Your task to perform on an android device: allow cookies in the chrome app Image 0: 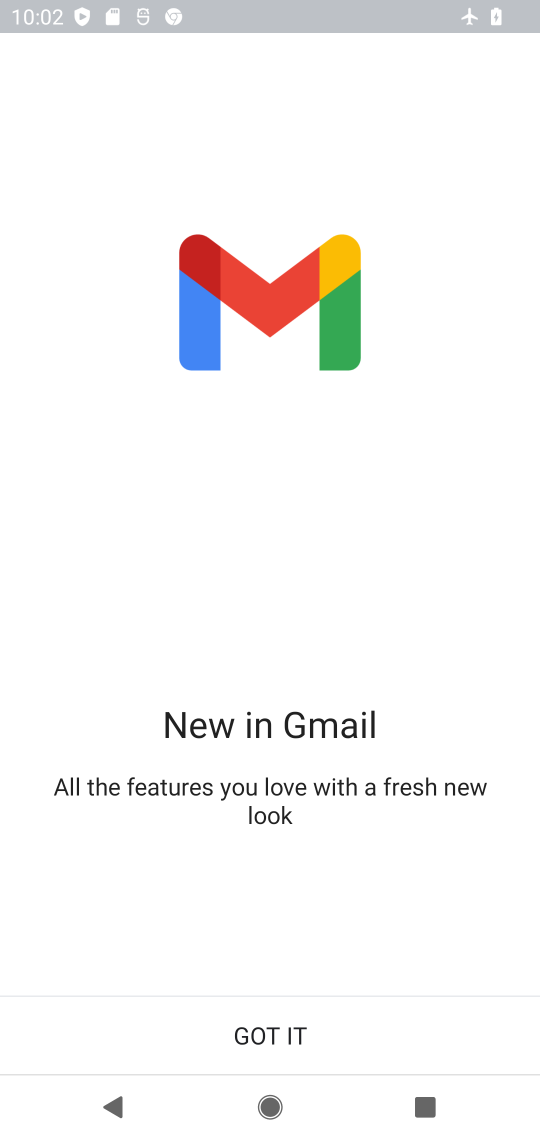
Step 0: press home button
Your task to perform on an android device: allow cookies in the chrome app Image 1: 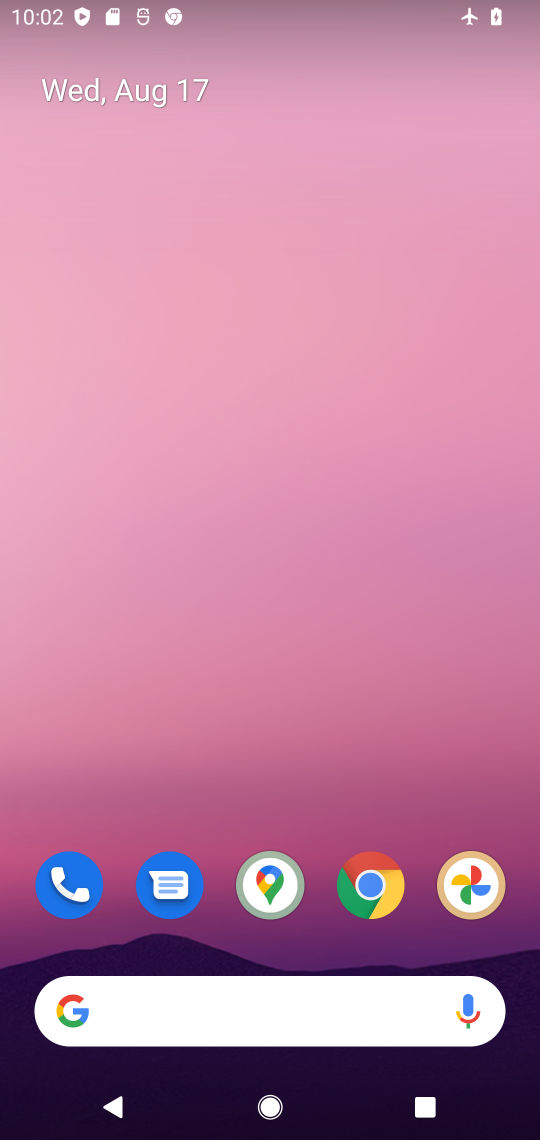
Step 1: click (370, 889)
Your task to perform on an android device: allow cookies in the chrome app Image 2: 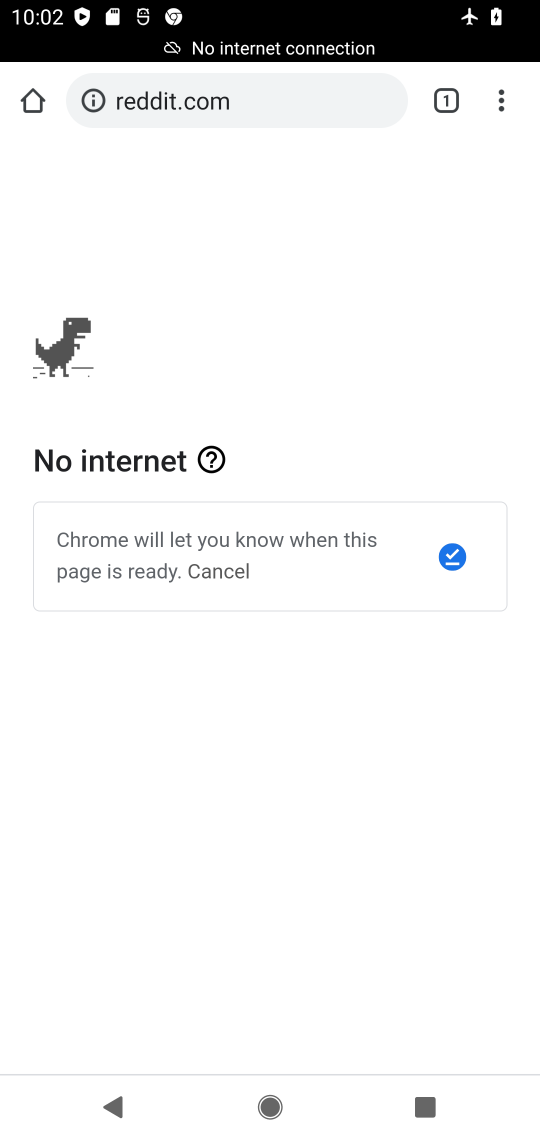
Step 2: click (494, 110)
Your task to perform on an android device: allow cookies in the chrome app Image 3: 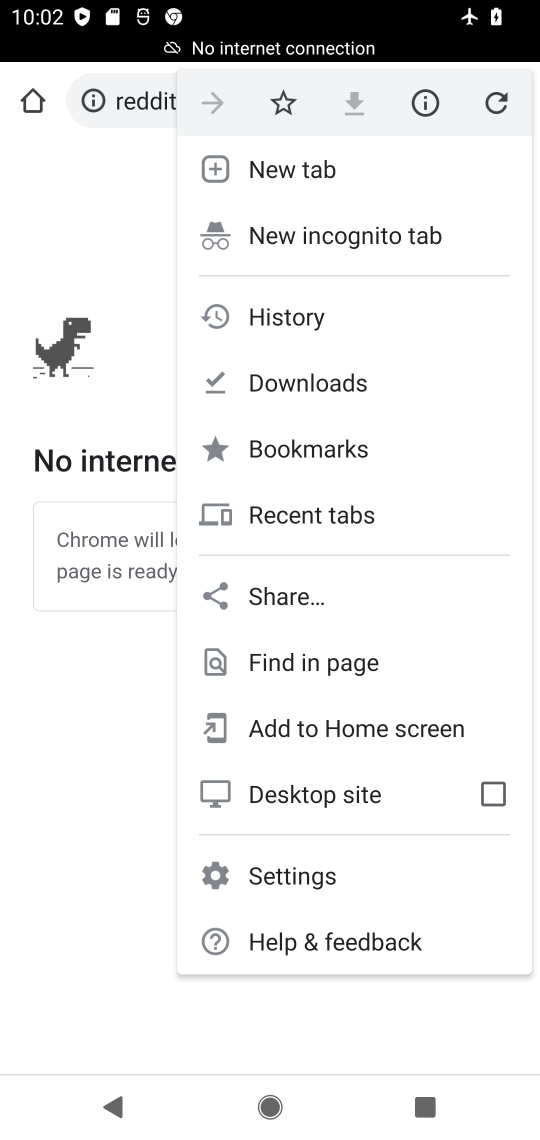
Step 3: click (300, 871)
Your task to perform on an android device: allow cookies in the chrome app Image 4: 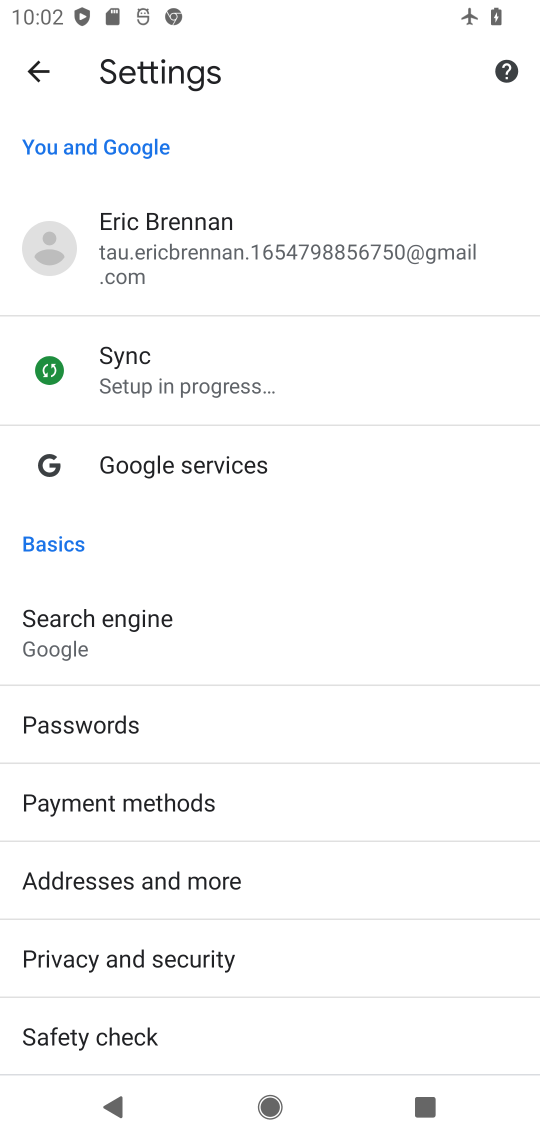
Step 4: drag from (306, 979) to (329, 338)
Your task to perform on an android device: allow cookies in the chrome app Image 5: 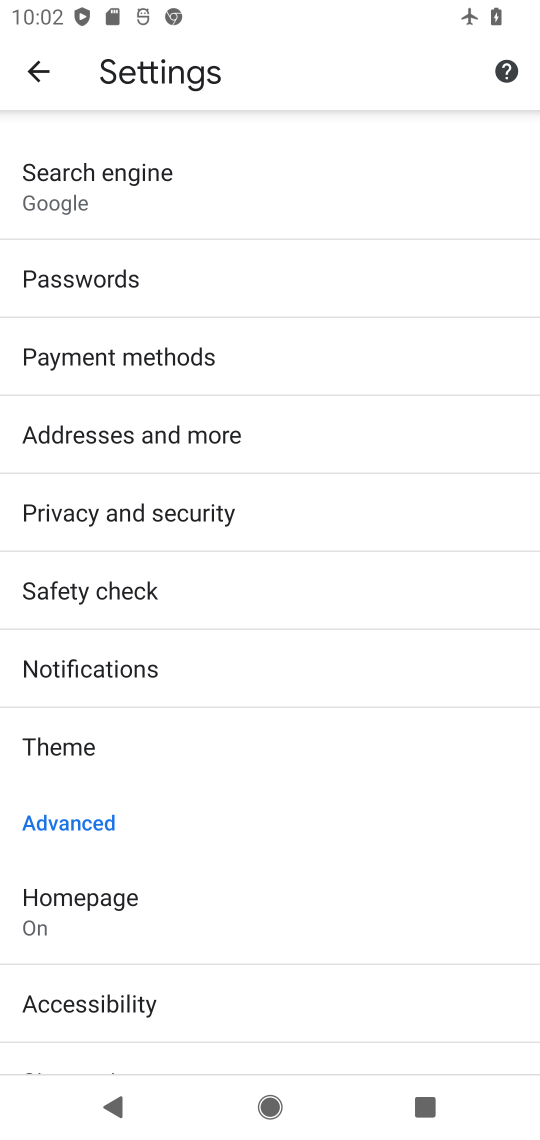
Step 5: drag from (296, 958) to (311, 261)
Your task to perform on an android device: allow cookies in the chrome app Image 6: 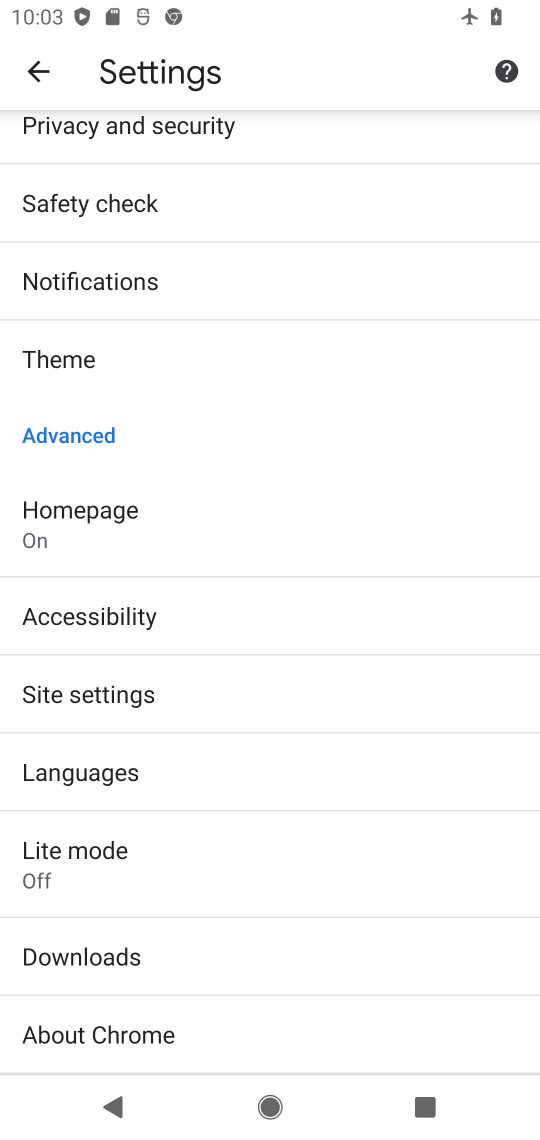
Step 6: click (92, 691)
Your task to perform on an android device: allow cookies in the chrome app Image 7: 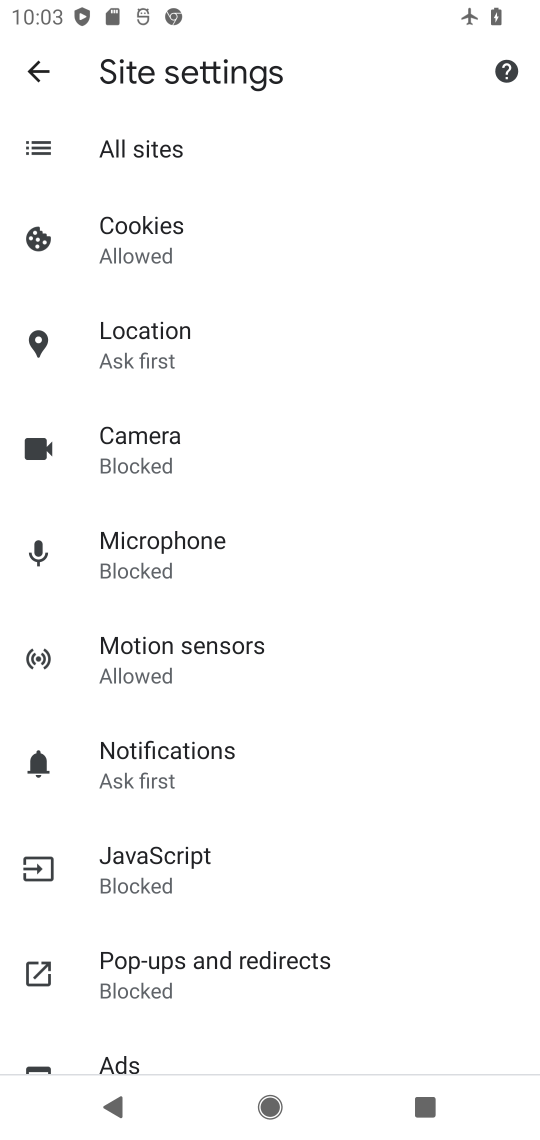
Step 7: click (146, 245)
Your task to perform on an android device: allow cookies in the chrome app Image 8: 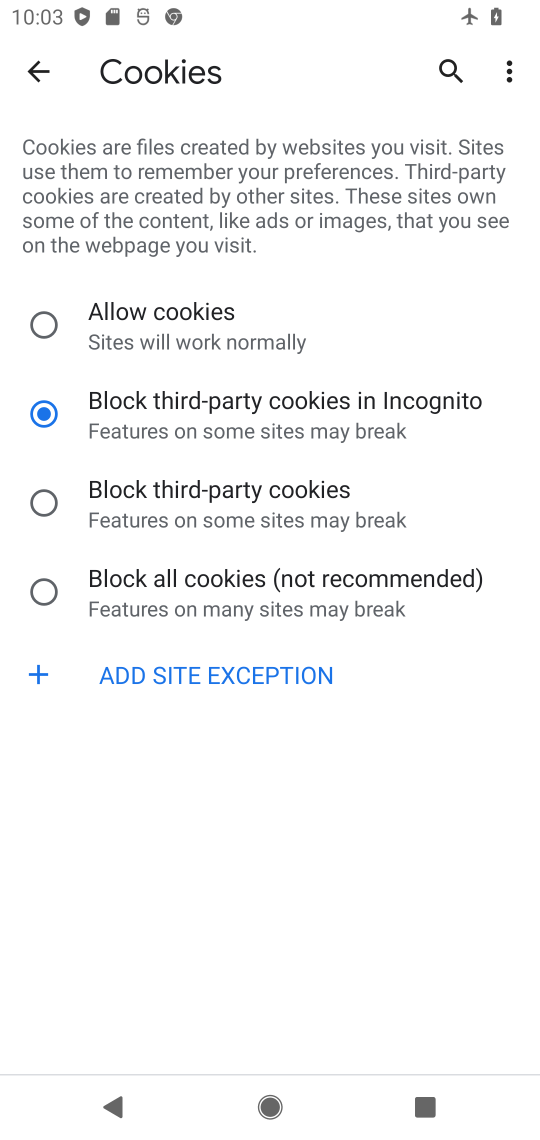
Step 8: click (33, 320)
Your task to perform on an android device: allow cookies in the chrome app Image 9: 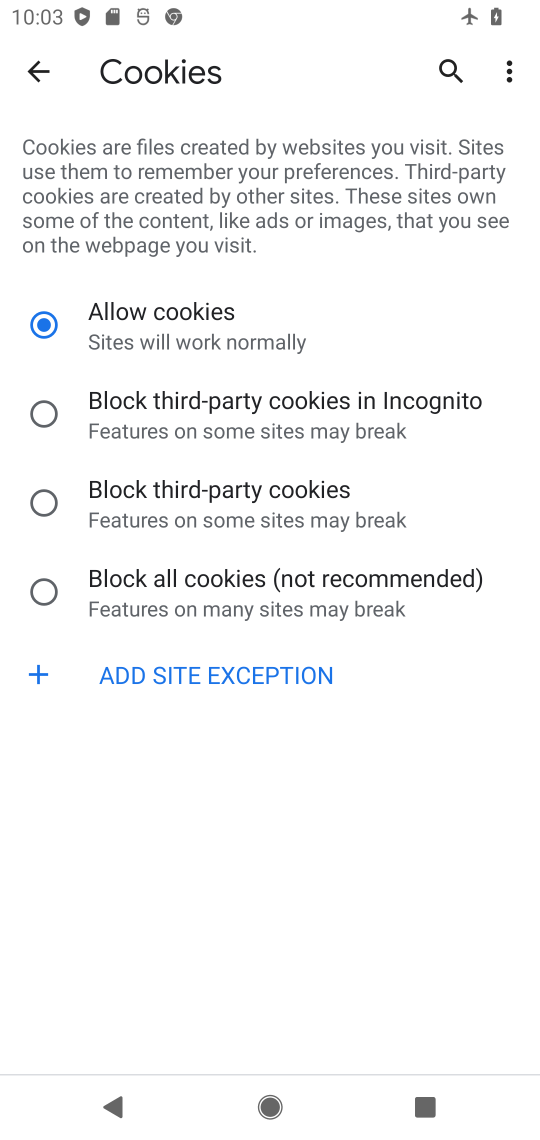
Step 9: task complete